Your task to perform on an android device: Open display settings Image 0: 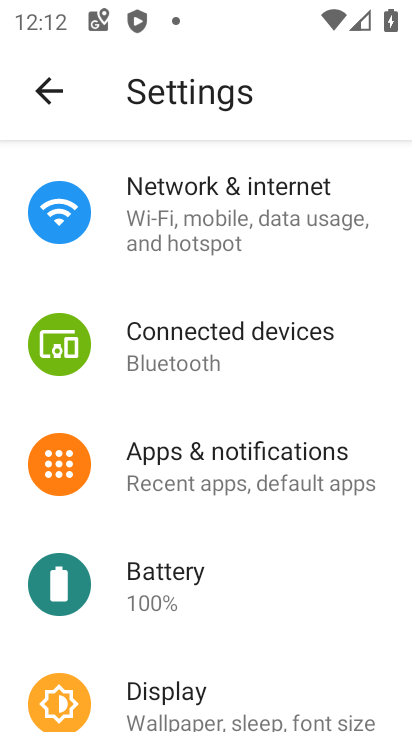
Step 0: press home button
Your task to perform on an android device: Open display settings Image 1: 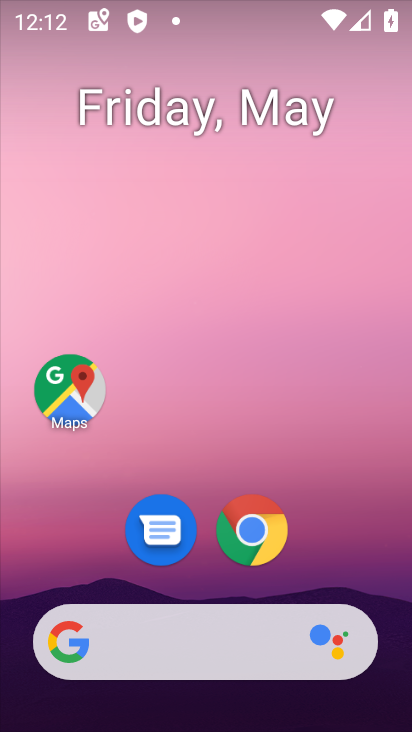
Step 1: drag from (336, 560) to (190, 90)
Your task to perform on an android device: Open display settings Image 2: 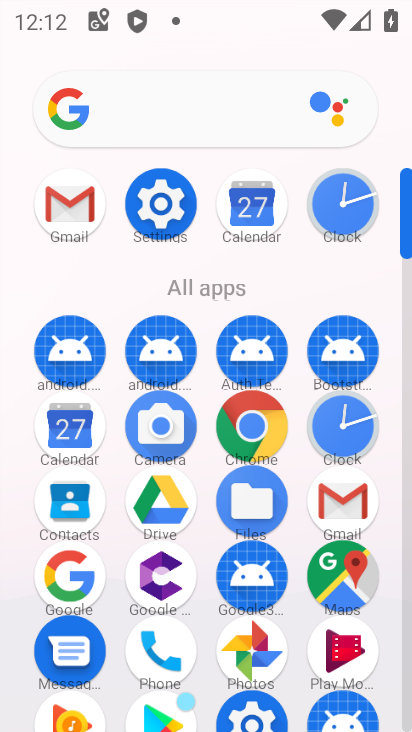
Step 2: click (160, 202)
Your task to perform on an android device: Open display settings Image 3: 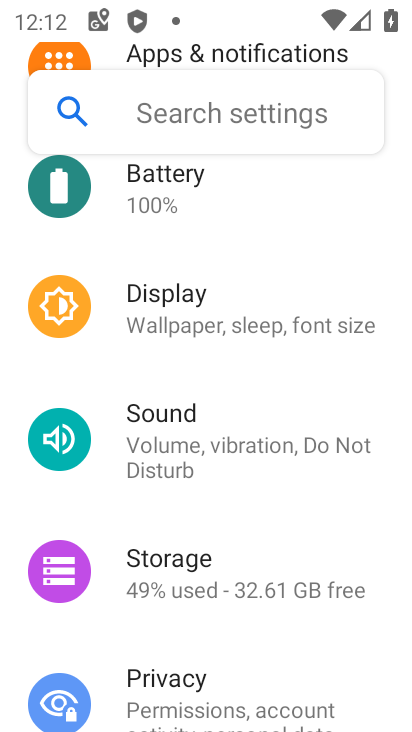
Step 3: click (170, 317)
Your task to perform on an android device: Open display settings Image 4: 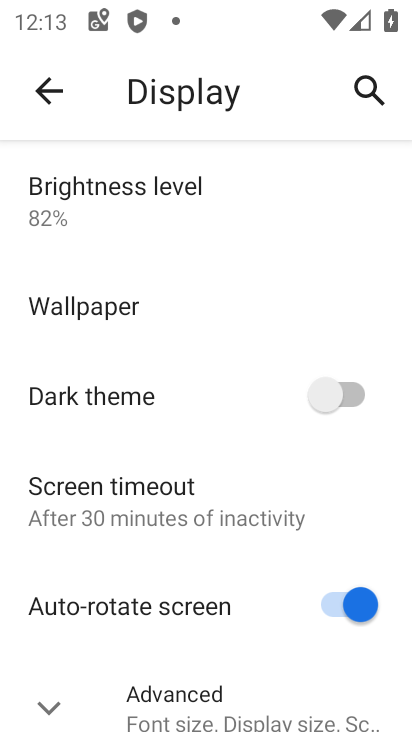
Step 4: task complete